Your task to perform on an android device: turn on the 12-hour format for clock Image 0: 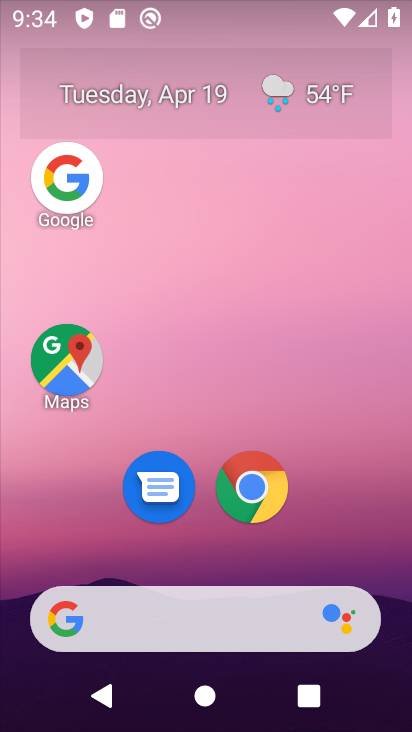
Step 0: drag from (316, 548) to (303, 131)
Your task to perform on an android device: turn on the 12-hour format for clock Image 1: 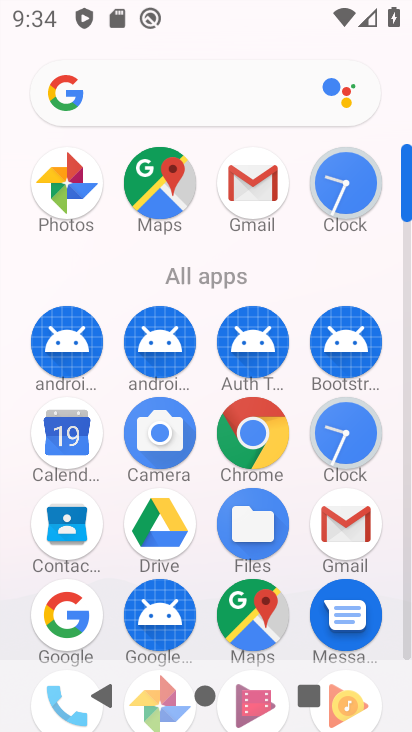
Step 1: drag from (227, 534) to (234, 161)
Your task to perform on an android device: turn on the 12-hour format for clock Image 2: 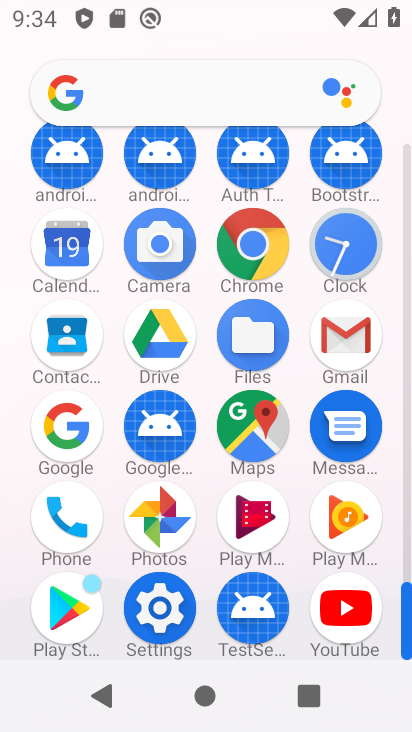
Step 2: click (341, 252)
Your task to perform on an android device: turn on the 12-hour format for clock Image 3: 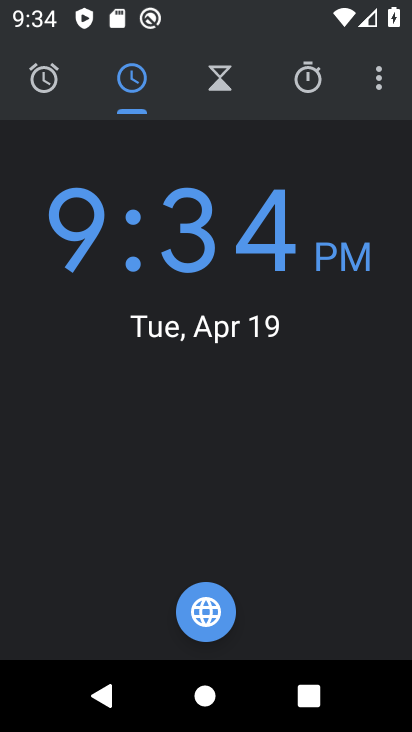
Step 3: click (380, 78)
Your task to perform on an android device: turn on the 12-hour format for clock Image 4: 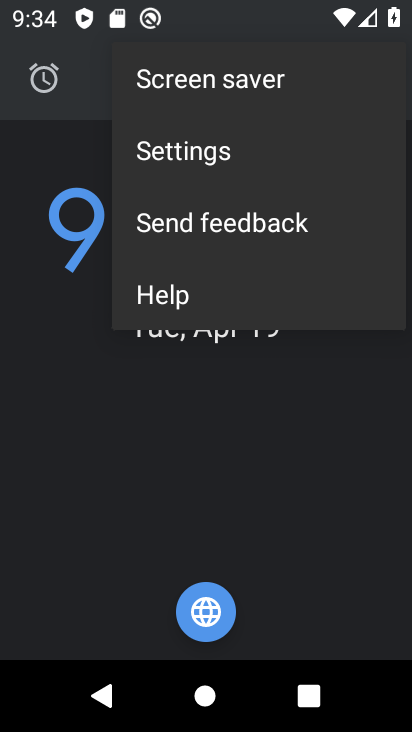
Step 4: click (329, 153)
Your task to perform on an android device: turn on the 12-hour format for clock Image 5: 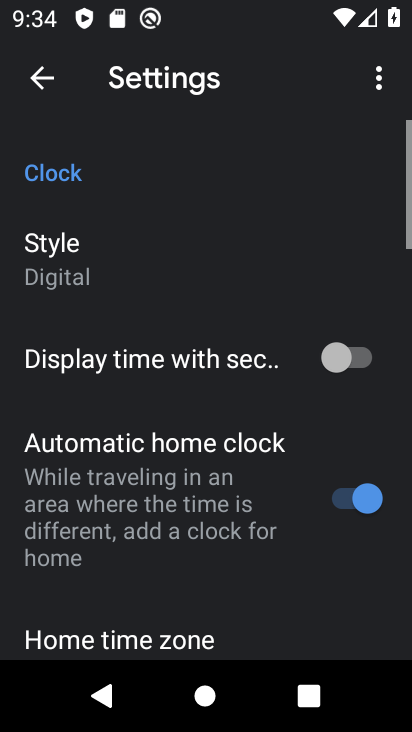
Step 5: click (329, 153)
Your task to perform on an android device: turn on the 12-hour format for clock Image 6: 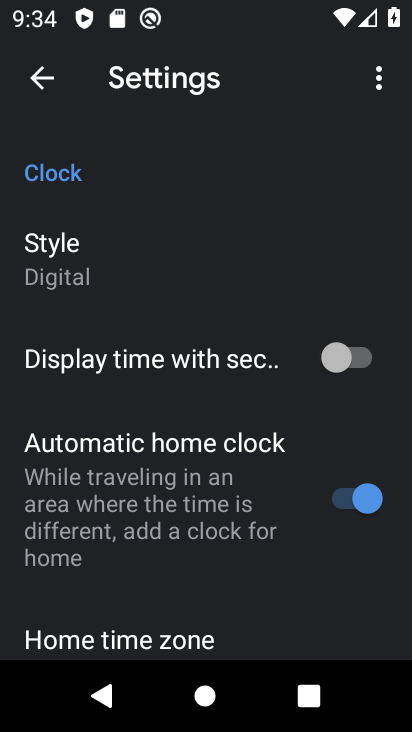
Step 6: drag from (180, 465) to (225, 97)
Your task to perform on an android device: turn on the 12-hour format for clock Image 7: 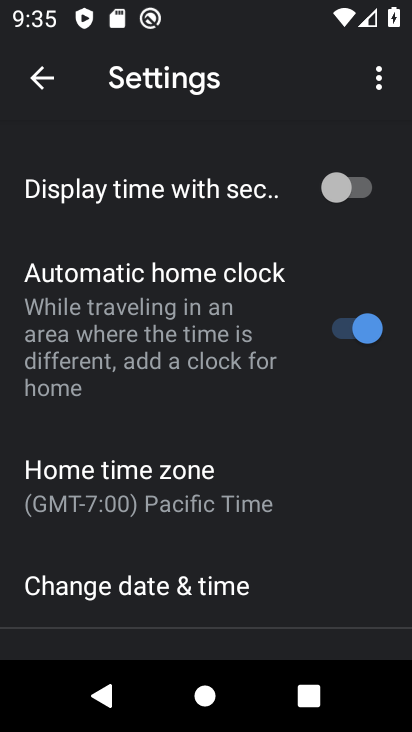
Step 7: drag from (185, 517) to (225, 148)
Your task to perform on an android device: turn on the 12-hour format for clock Image 8: 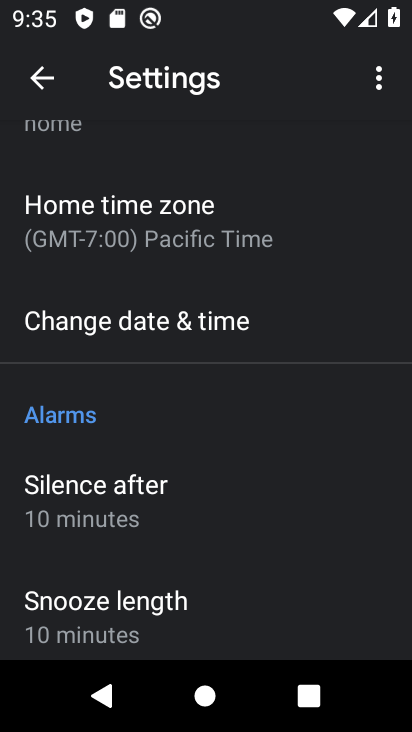
Step 8: click (189, 318)
Your task to perform on an android device: turn on the 12-hour format for clock Image 9: 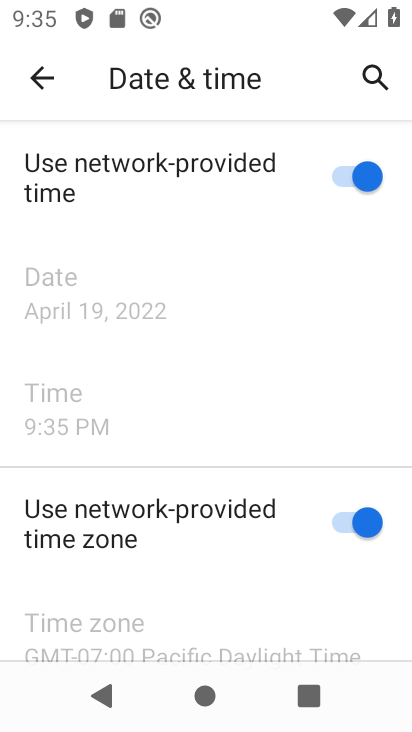
Step 9: task complete